Your task to perform on an android device: open the mobile data screen to see how much data has been used Image 0: 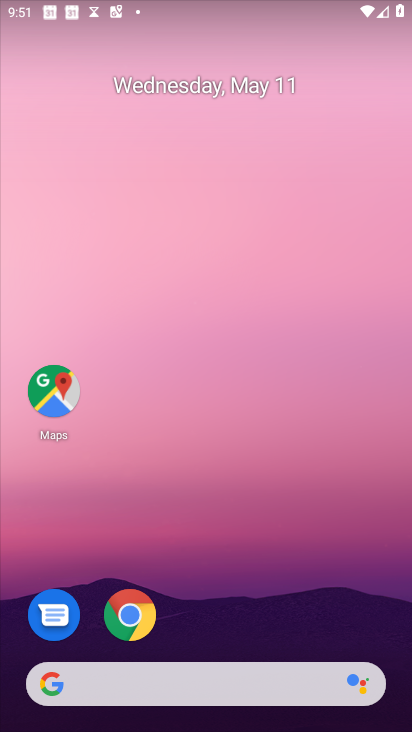
Step 0: drag from (301, 637) to (205, 0)
Your task to perform on an android device: open the mobile data screen to see how much data has been used Image 1: 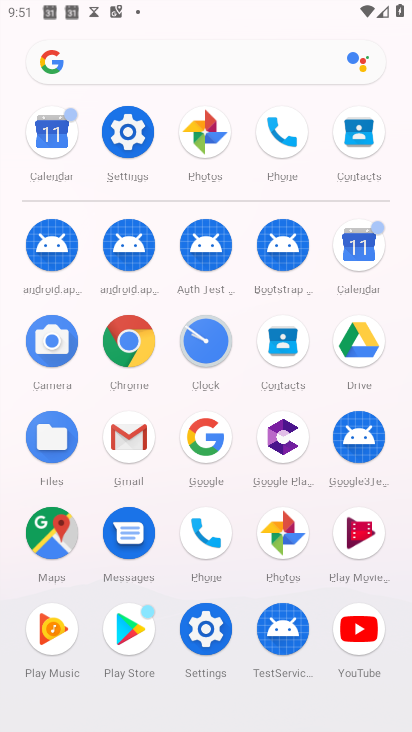
Step 1: click (131, 151)
Your task to perform on an android device: open the mobile data screen to see how much data has been used Image 2: 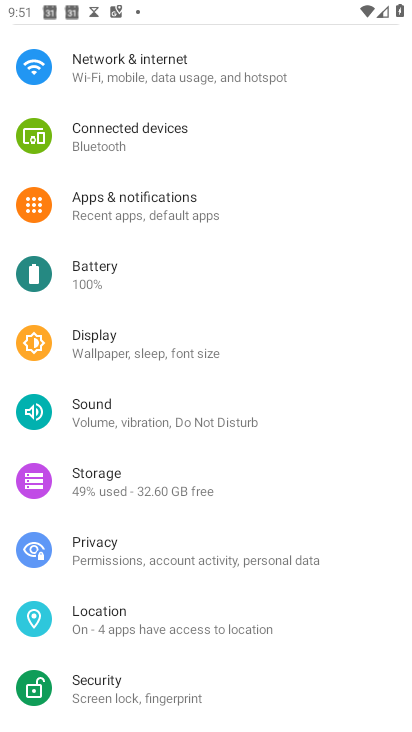
Step 2: drag from (188, 122) to (212, 435)
Your task to perform on an android device: open the mobile data screen to see how much data has been used Image 3: 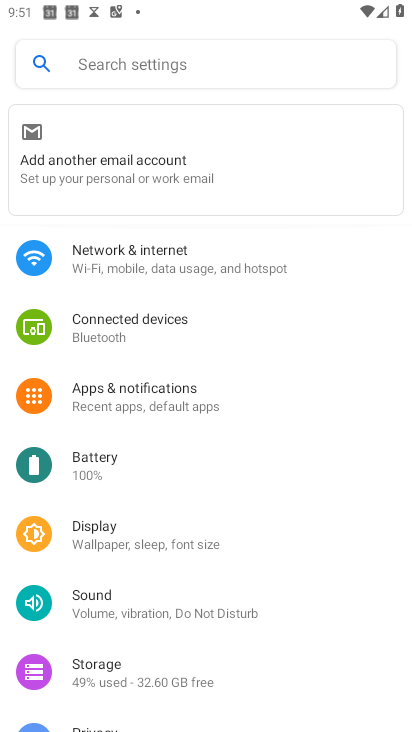
Step 3: click (216, 265)
Your task to perform on an android device: open the mobile data screen to see how much data has been used Image 4: 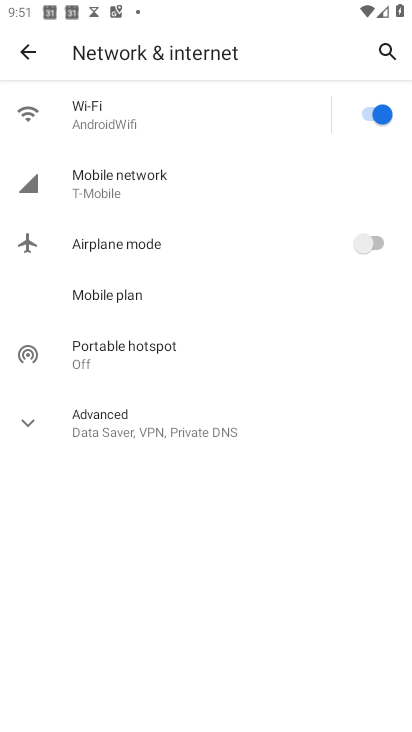
Step 4: click (185, 177)
Your task to perform on an android device: open the mobile data screen to see how much data has been used Image 5: 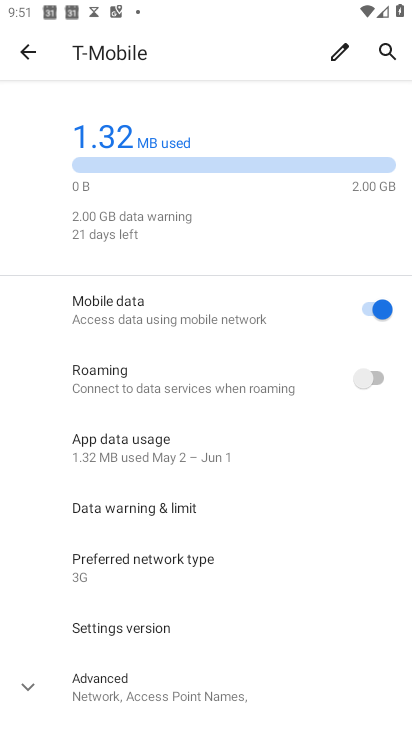
Step 5: click (217, 452)
Your task to perform on an android device: open the mobile data screen to see how much data has been used Image 6: 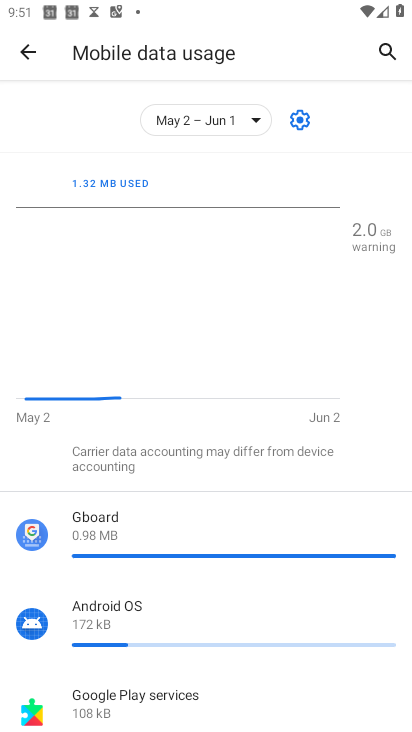
Step 6: task complete